Your task to perform on an android device: open a new tab in the chrome app Image 0: 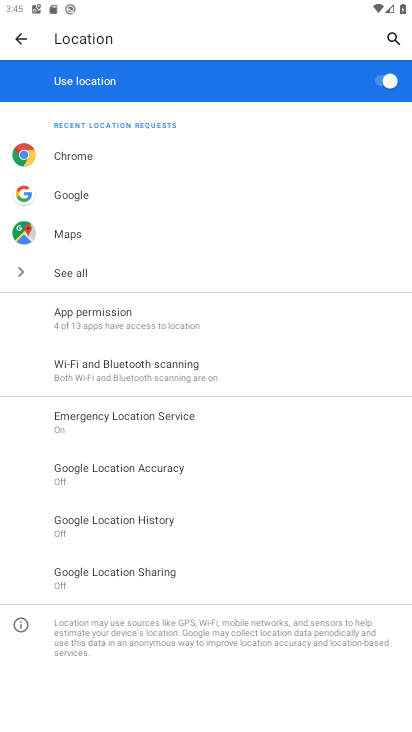
Step 0: press home button
Your task to perform on an android device: open a new tab in the chrome app Image 1: 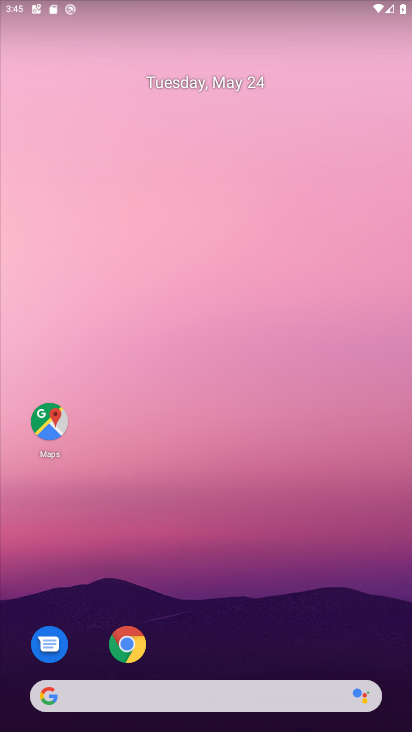
Step 1: click (255, 631)
Your task to perform on an android device: open a new tab in the chrome app Image 2: 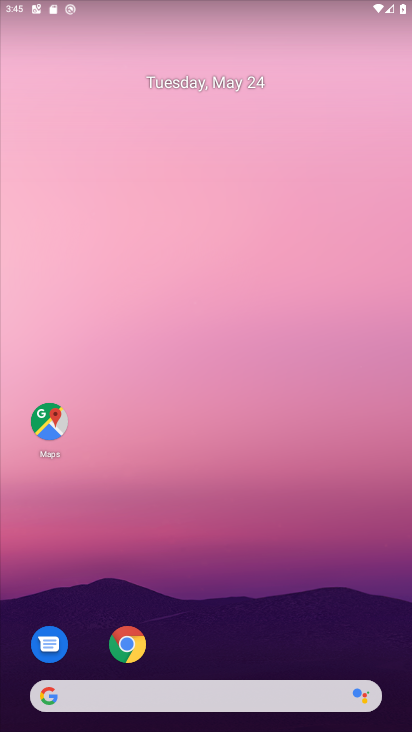
Step 2: click (136, 639)
Your task to perform on an android device: open a new tab in the chrome app Image 3: 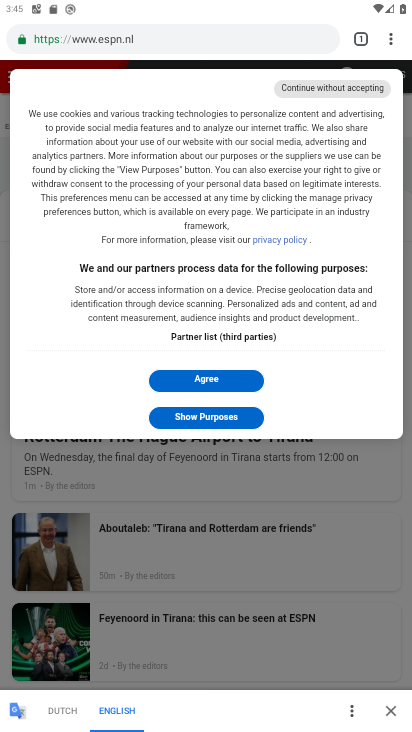
Step 3: click (200, 386)
Your task to perform on an android device: open a new tab in the chrome app Image 4: 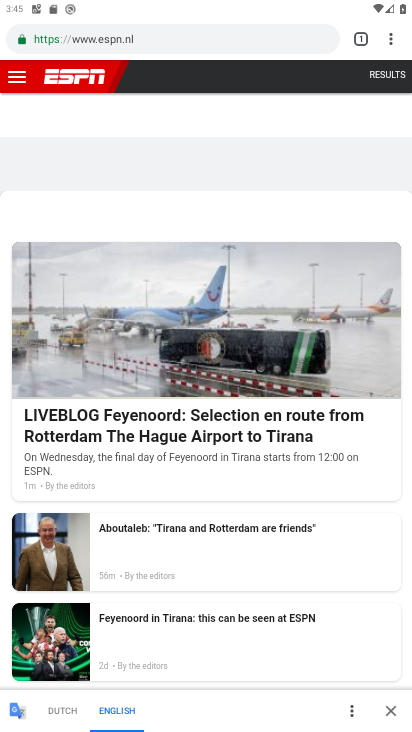
Step 4: click (395, 35)
Your task to perform on an android device: open a new tab in the chrome app Image 5: 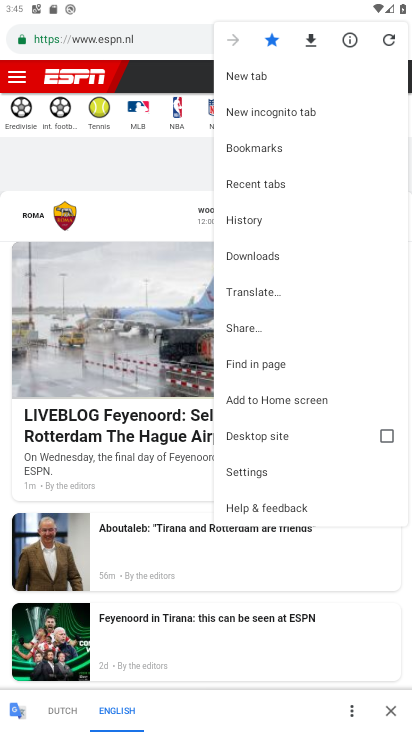
Step 5: click (309, 77)
Your task to perform on an android device: open a new tab in the chrome app Image 6: 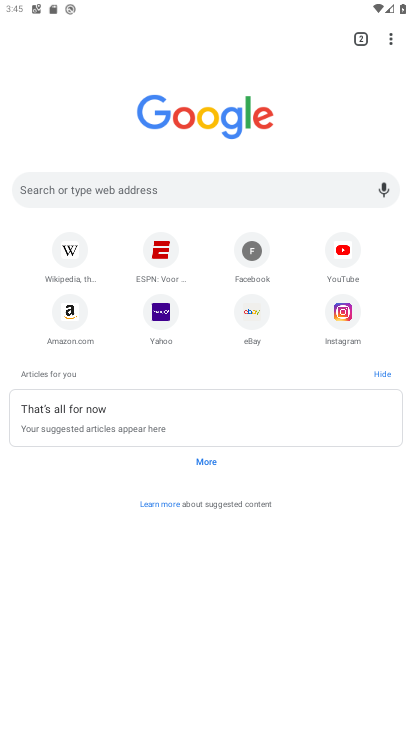
Step 6: task complete